Your task to perform on an android device: Search for Mexican restaurants on Maps Image 0: 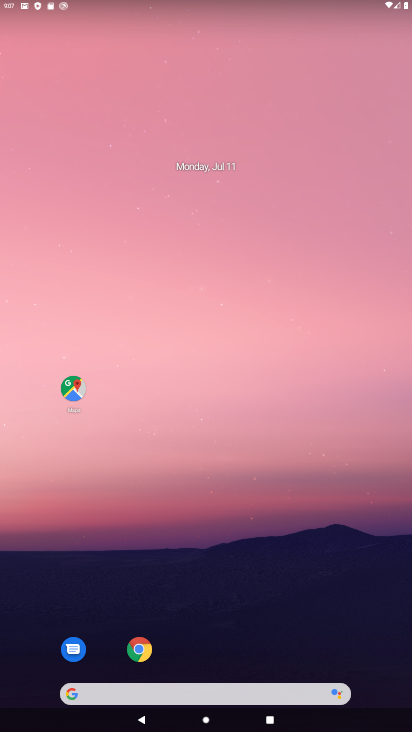
Step 0: drag from (249, 581) to (347, 6)
Your task to perform on an android device: Search for Mexican restaurants on Maps Image 1: 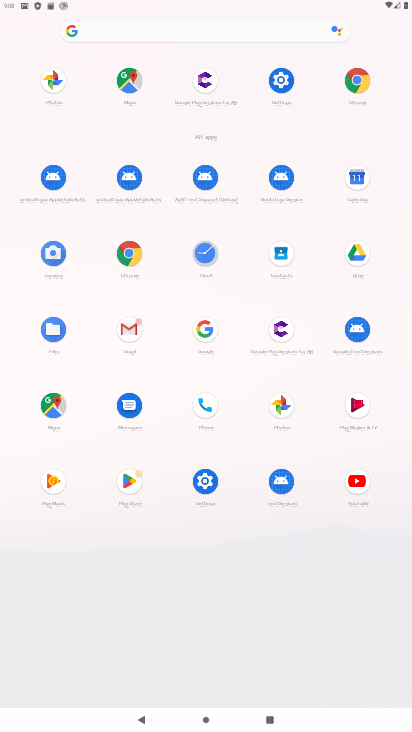
Step 1: click (133, 72)
Your task to perform on an android device: Search for Mexican restaurants on Maps Image 2: 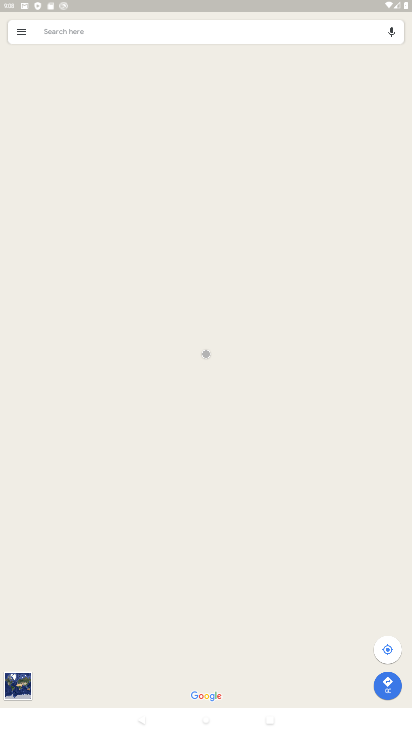
Step 2: click (166, 27)
Your task to perform on an android device: Search for Mexican restaurants on Maps Image 3: 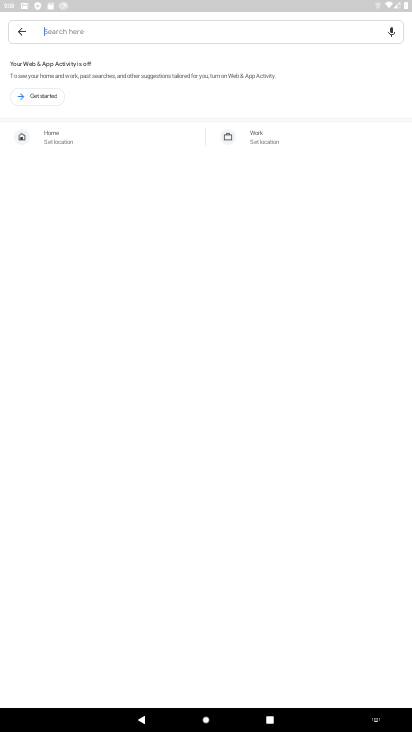
Step 3: type "Mexican restaurants "
Your task to perform on an android device: Search for Mexican restaurants on Maps Image 4: 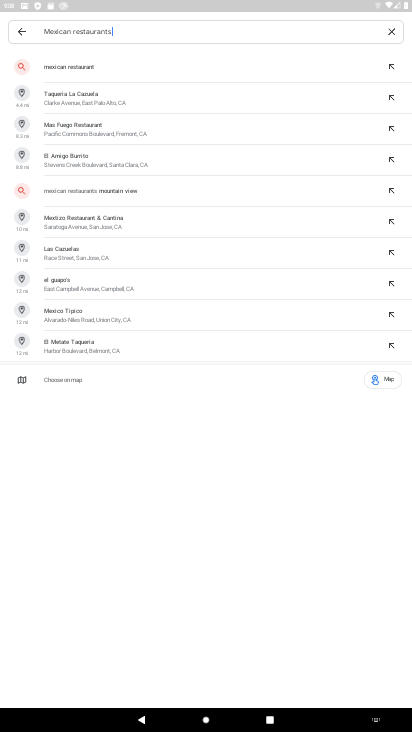
Step 4: click (86, 50)
Your task to perform on an android device: Search for Mexican restaurants on Maps Image 5: 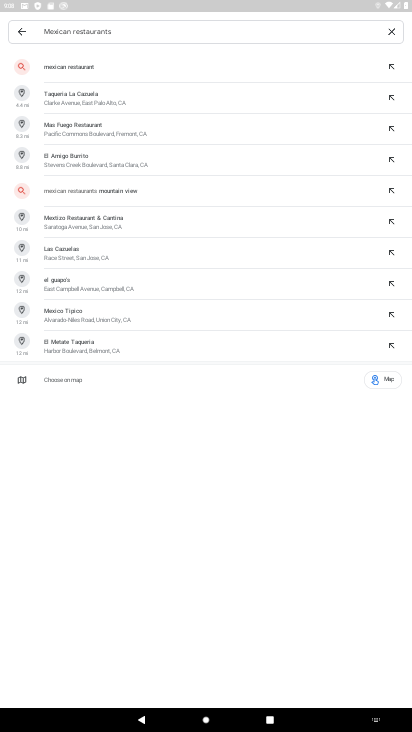
Step 5: click (86, 52)
Your task to perform on an android device: Search for Mexican restaurants on Maps Image 6: 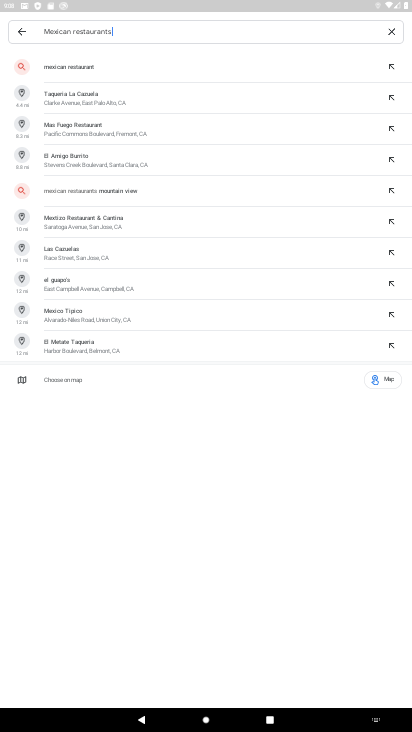
Step 6: click (88, 56)
Your task to perform on an android device: Search for Mexican restaurants on Maps Image 7: 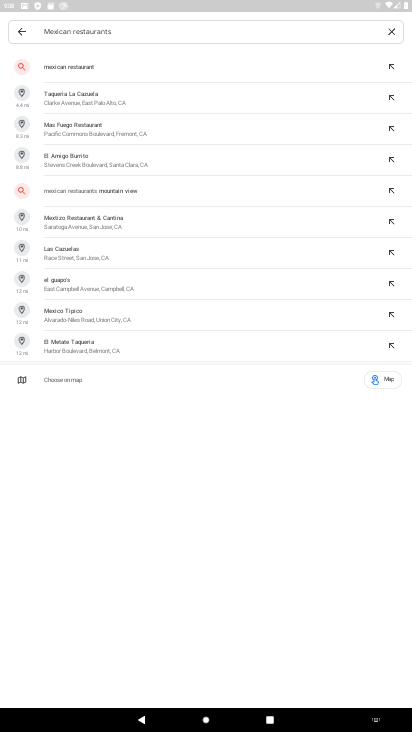
Step 7: click (91, 65)
Your task to perform on an android device: Search for Mexican restaurants on Maps Image 8: 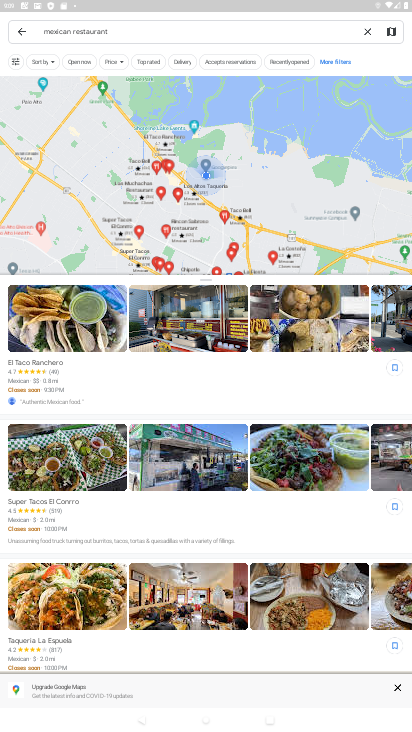
Step 8: task complete